Your task to perform on an android device: add a label to a message in the gmail app Image 0: 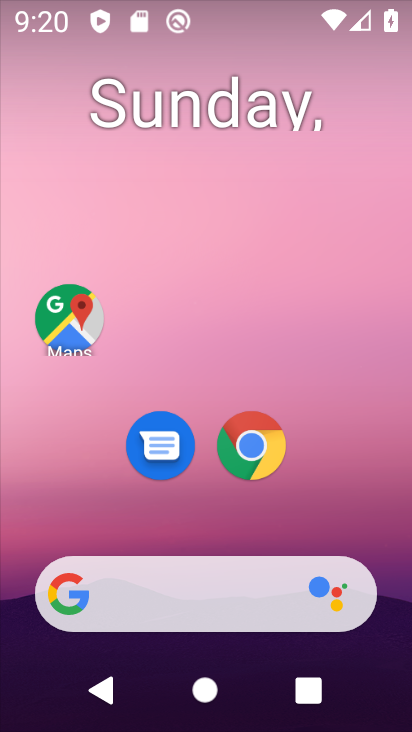
Step 0: drag from (215, 526) to (239, 84)
Your task to perform on an android device: add a label to a message in the gmail app Image 1: 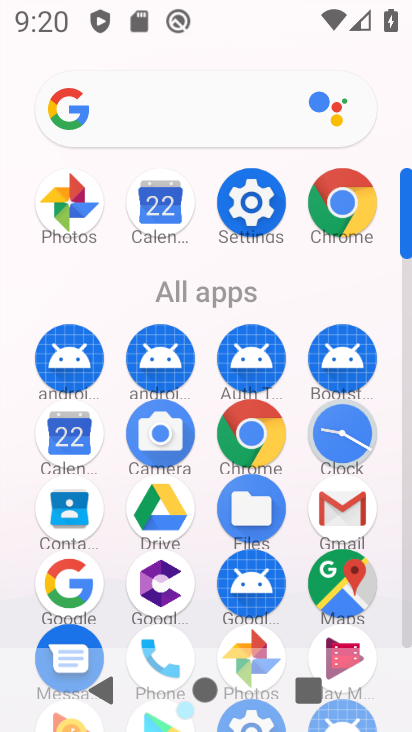
Step 1: click (342, 509)
Your task to perform on an android device: add a label to a message in the gmail app Image 2: 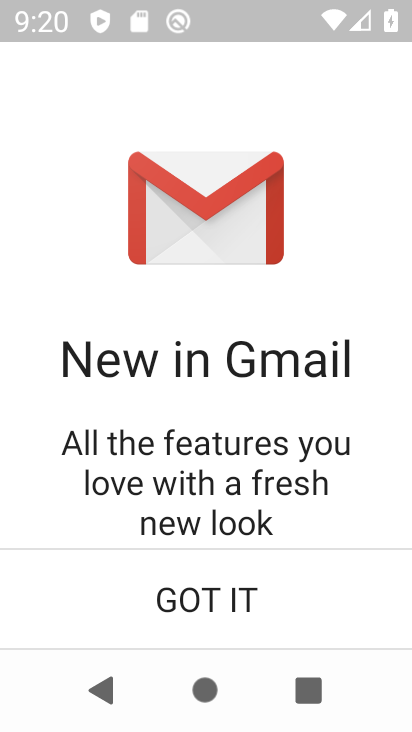
Step 2: click (219, 613)
Your task to perform on an android device: add a label to a message in the gmail app Image 3: 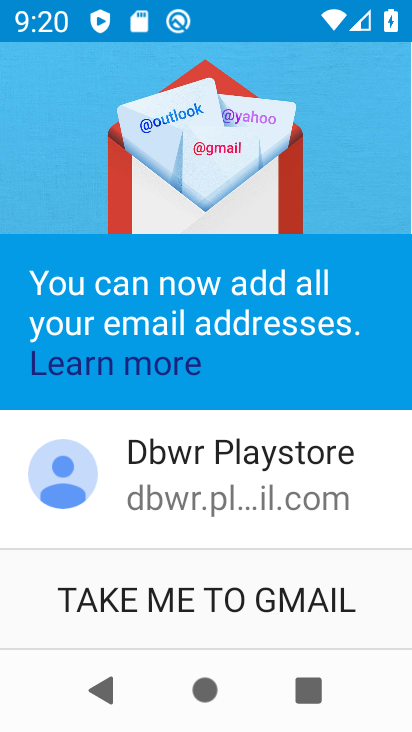
Step 3: click (214, 612)
Your task to perform on an android device: add a label to a message in the gmail app Image 4: 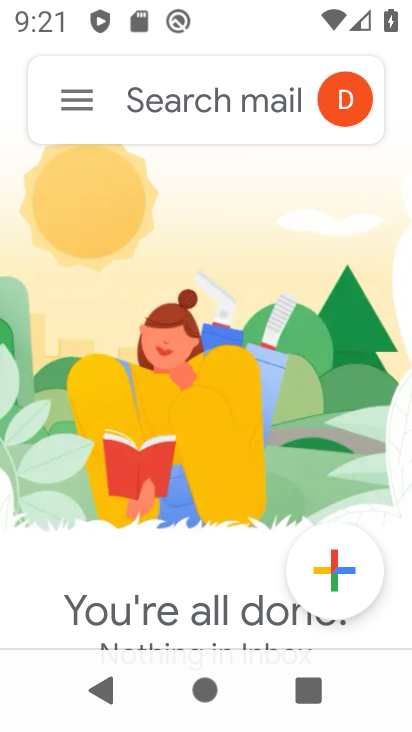
Step 4: click (78, 98)
Your task to perform on an android device: add a label to a message in the gmail app Image 5: 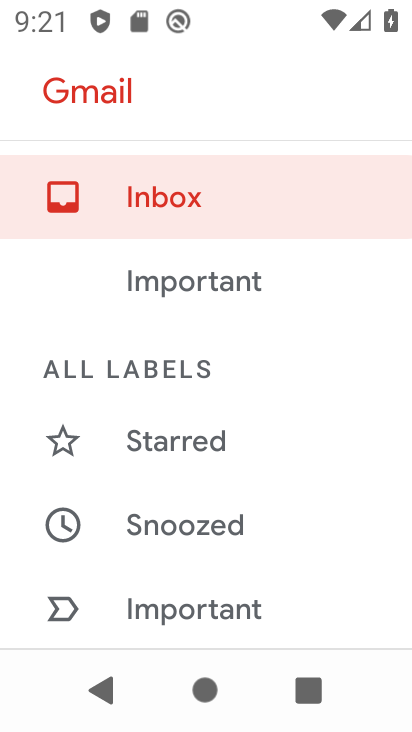
Step 5: drag from (189, 508) to (321, 122)
Your task to perform on an android device: add a label to a message in the gmail app Image 6: 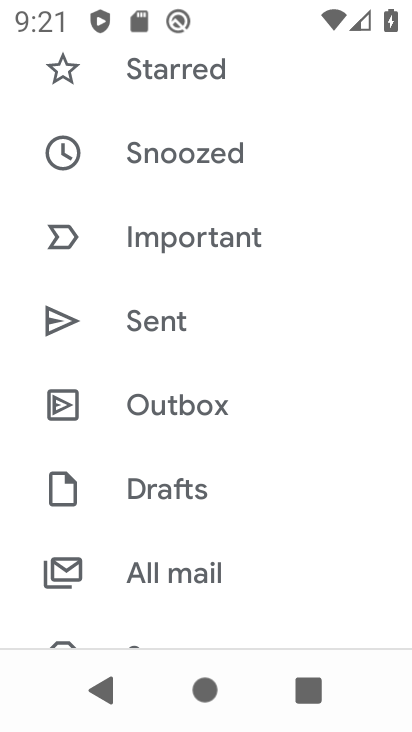
Step 6: click (166, 570)
Your task to perform on an android device: add a label to a message in the gmail app Image 7: 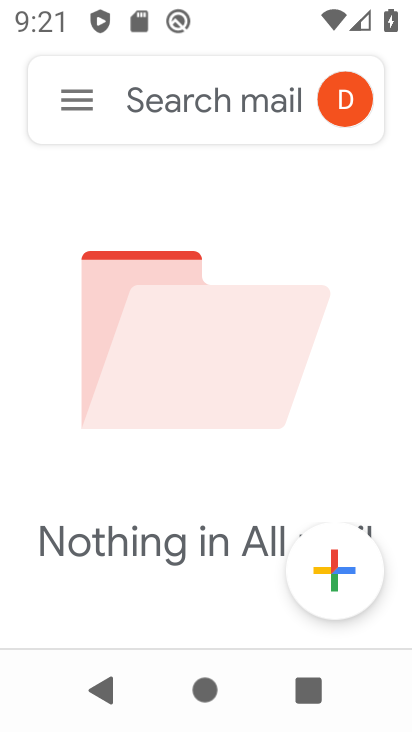
Step 7: task complete